Your task to perform on an android device: toggle location history Image 0: 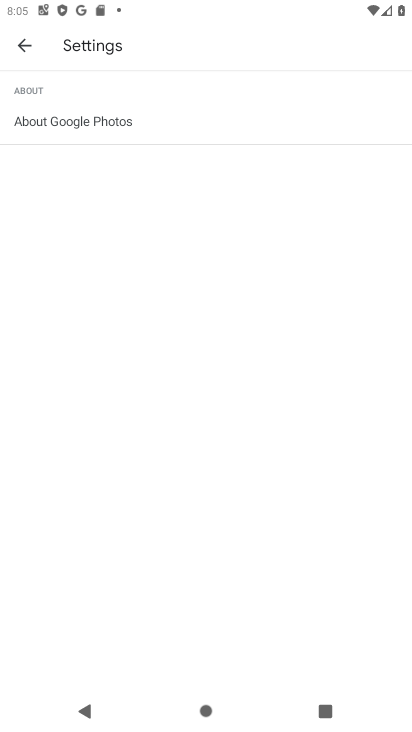
Step 0: press home button
Your task to perform on an android device: toggle location history Image 1: 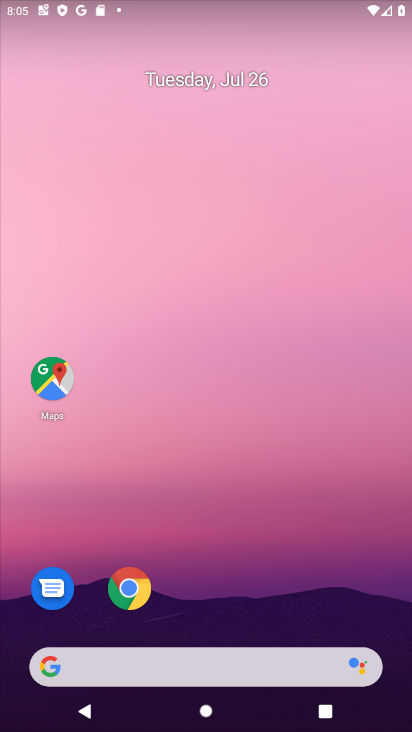
Step 1: drag from (274, 577) to (265, 83)
Your task to perform on an android device: toggle location history Image 2: 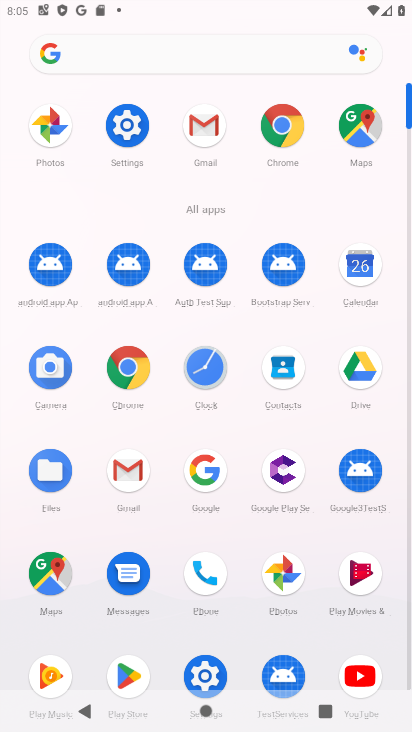
Step 2: click (142, 113)
Your task to perform on an android device: toggle location history Image 3: 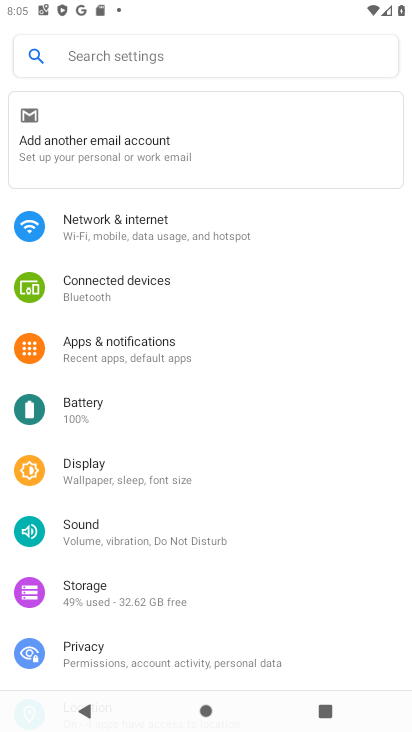
Step 3: drag from (130, 501) to (137, 229)
Your task to perform on an android device: toggle location history Image 4: 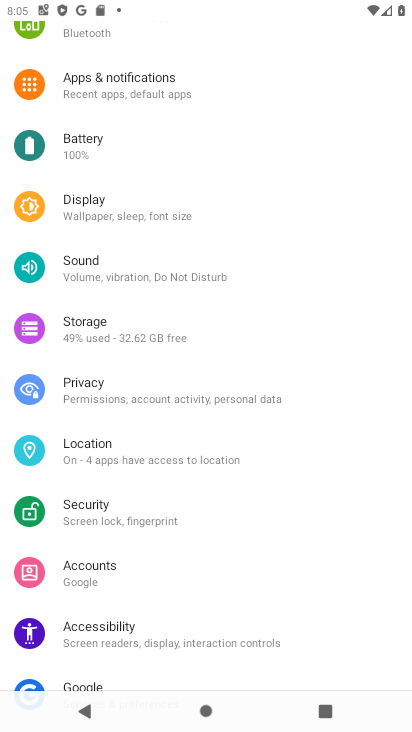
Step 4: click (133, 446)
Your task to perform on an android device: toggle location history Image 5: 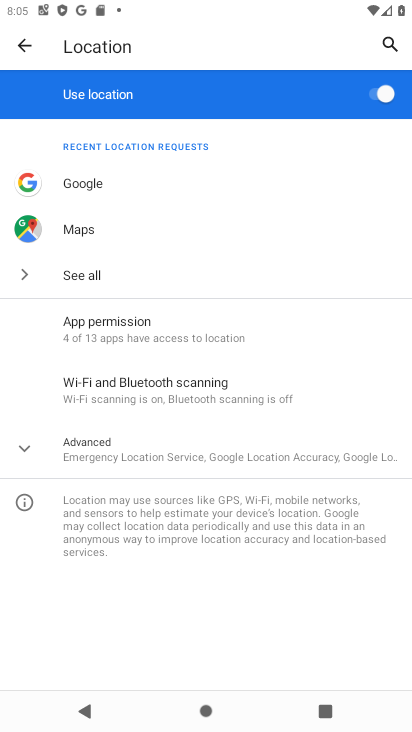
Step 5: click (23, 443)
Your task to perform on an android device: toggle location history Image 6: 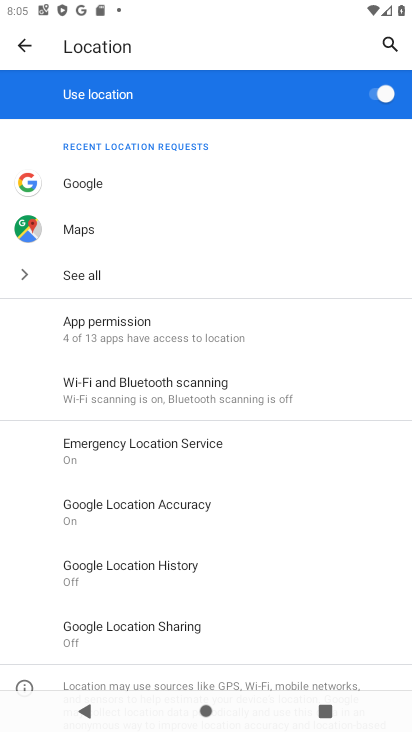
Step 6: click (130, 579)
Your task to perform on an android device: toggle location history Image 7: 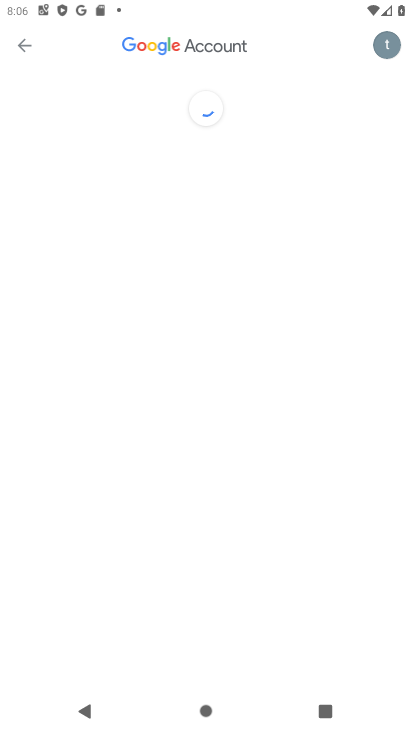
Step 7: click (356, 533)
Your task to perform on an android device: toggle location history Image 8: 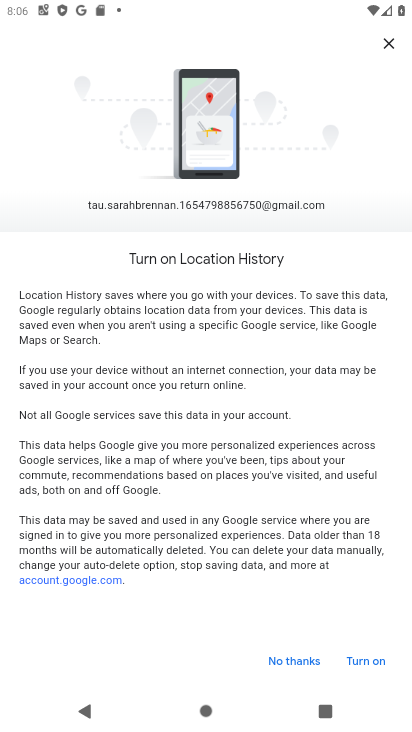
Step 8: click (378, 659)
Your task to perform on an android device: toggle location history Image 9: 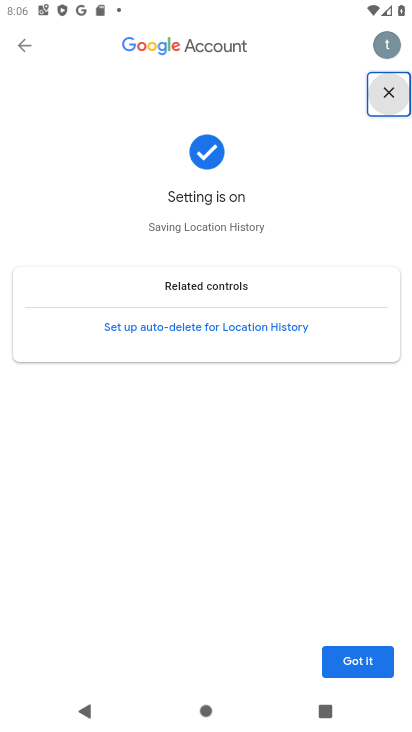
Step 9: click (367, 660)
Your task to perform on an android device: toggle location history Image 10: 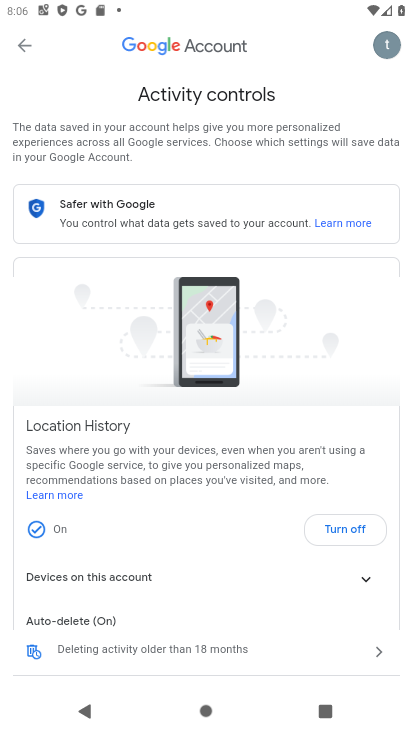
Step 10: task complete